Your task to perform on an android device: Open accessibility settings Image 0: 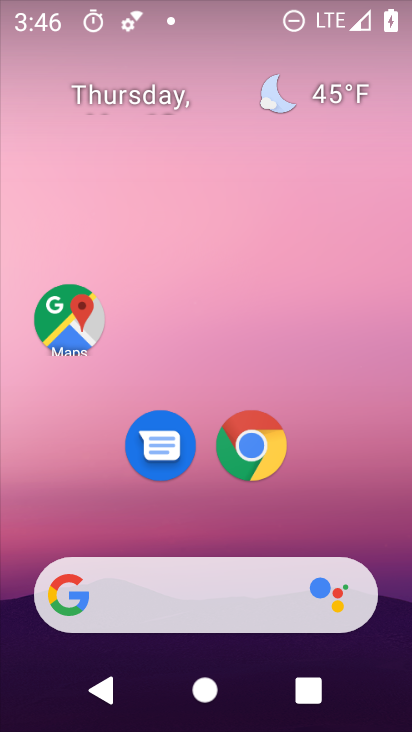
Step 0: drag from (341, 455) to (191, 94)
Your task to perform on an android device: Open accessibility settings Image 1: 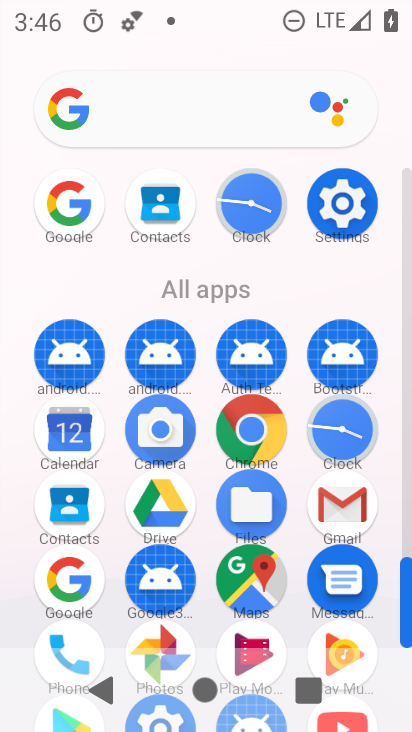
Step 1: click (345, 204)
Your task to perform on an android device: Open accessibility settings Image 2: 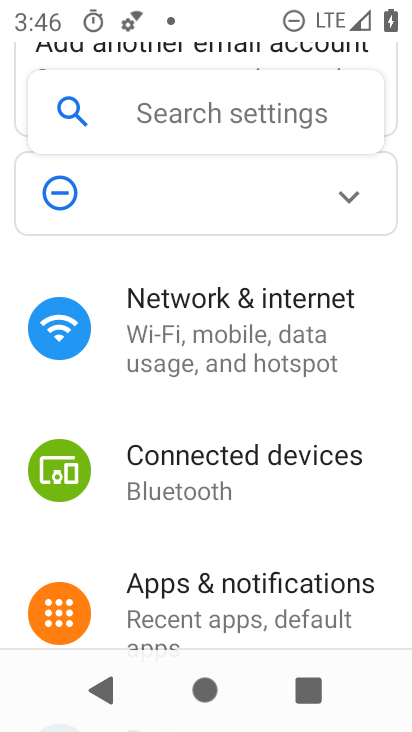
Step 2: drag from (230, 431) to (299, 264)
Your task to perform on an android device: Open accessibility settings Image 3: 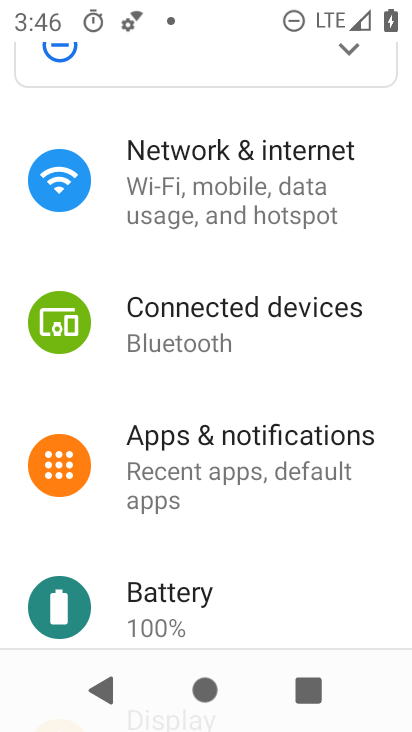
Step 3: drag from (222, 517) to (265, 442)
Your task to perform on an android device: Open accessibility settings Image 4: 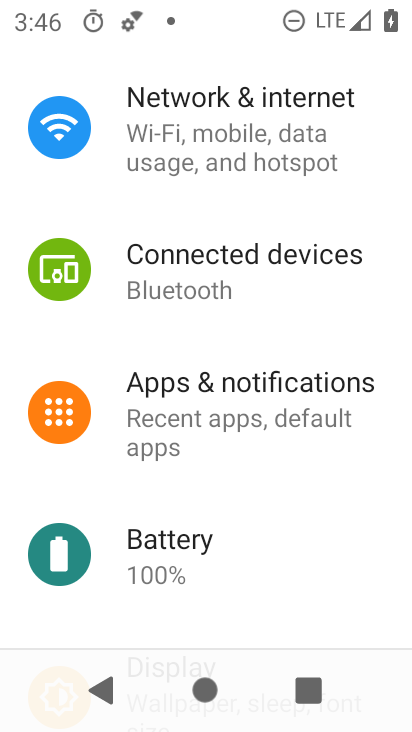
Step 4: drag from (249, 522) to (294, 392)
Your task to perform on an android device: Open accessibility settings Image 5: 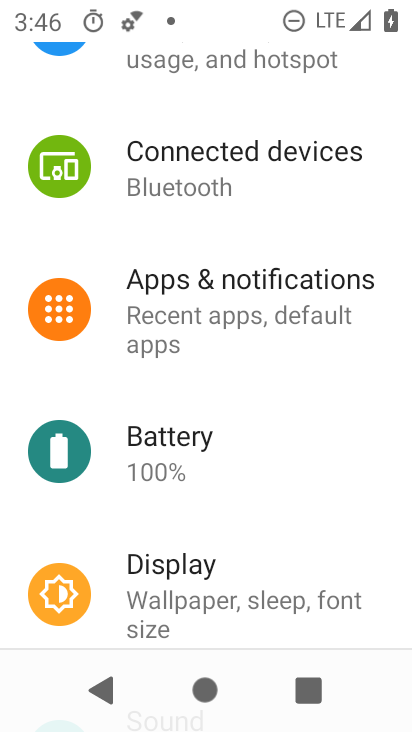
Step 5: drag from (257, 506) to (253, 428)
Your task to perform on an android device: Open accessibility settings Image 6: 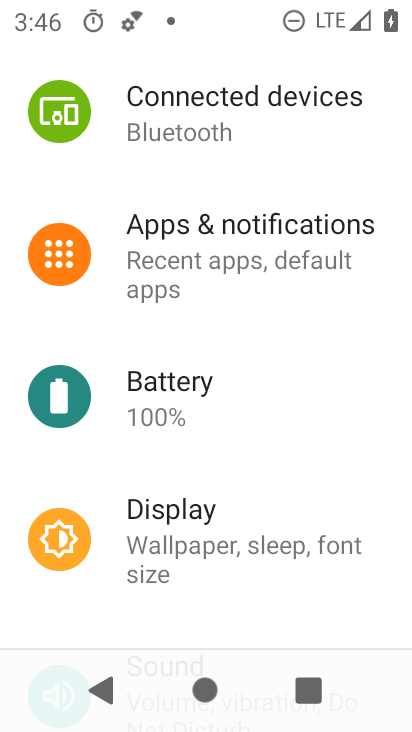
Step 6: drag from (264, 491) to (283, 406)
Your task to perform on an android device: Open accessibility settings Image 7: 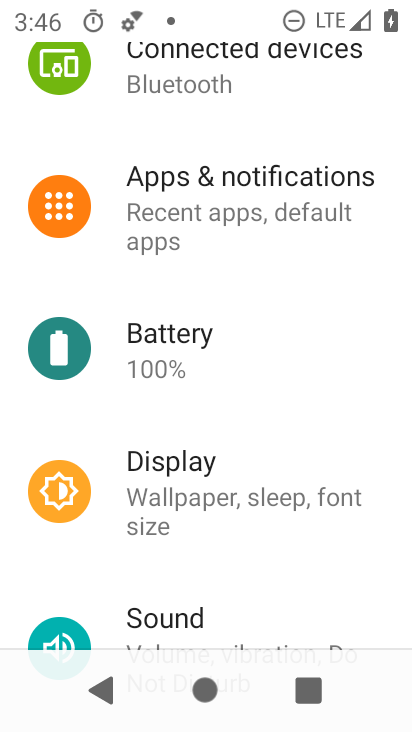
Step 7: drag from (237, 536) to (263, 414)
Your task to perform on an android device: Open accessibility settings Image 8: 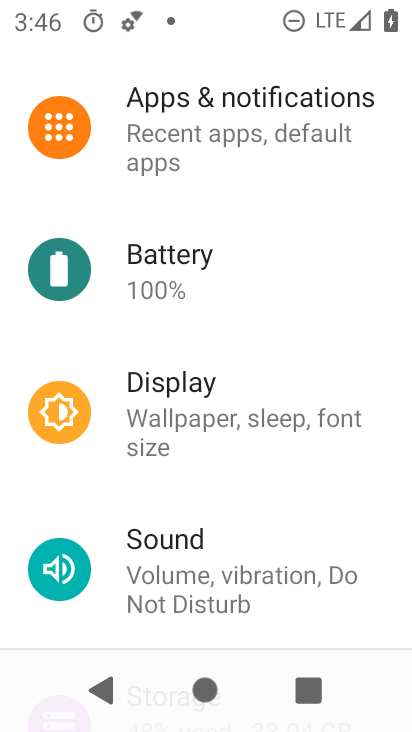
Step 8: drag from (254, 514) to (276, 380)
Your task to perform on an android device: Open accessibility settings Image 9: 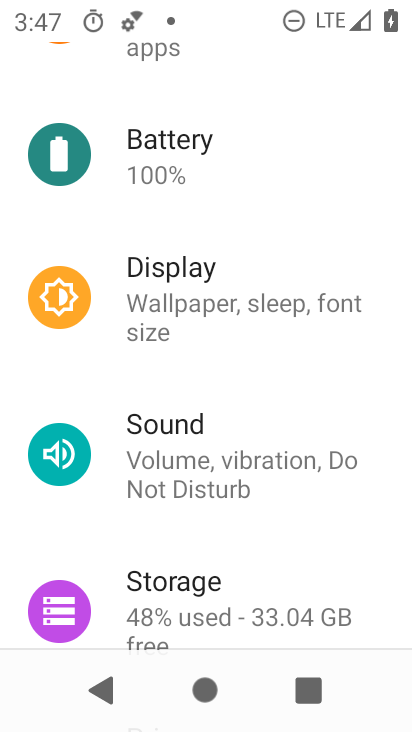
Step 9: drag from (247, 524) to (290, 367)
Your task to perform on an android device: Open accessibility settings Image 10: 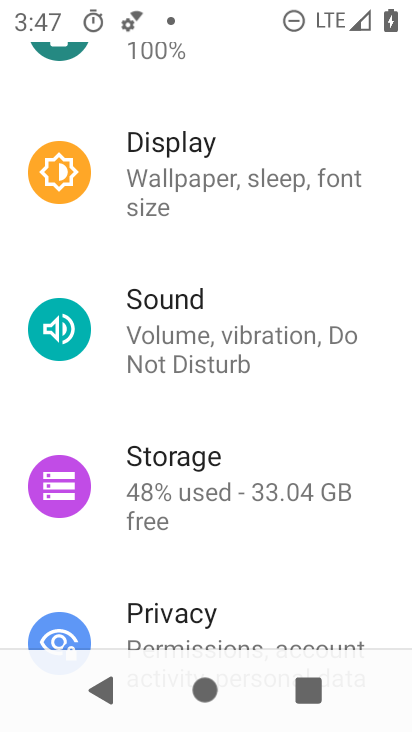
Step 10: drag from (235, 567) to (311, 373)
Your task to perform on an android device: Open accessibility settings Image 11: 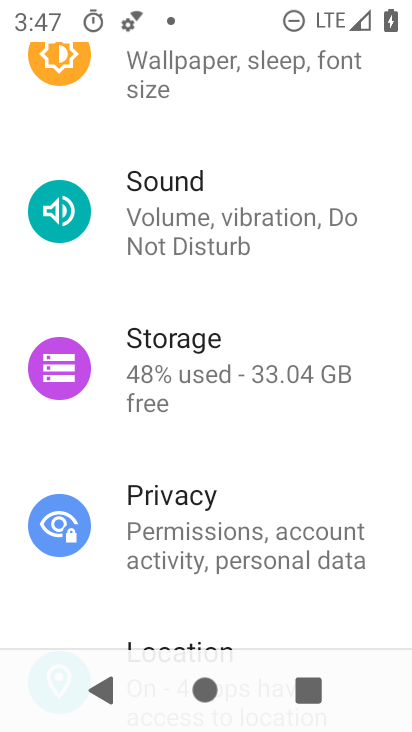
Step 11: drag from (223, 590) to (300, 372)
Your task to perform on an android device: Open accessibility settings Image 12: 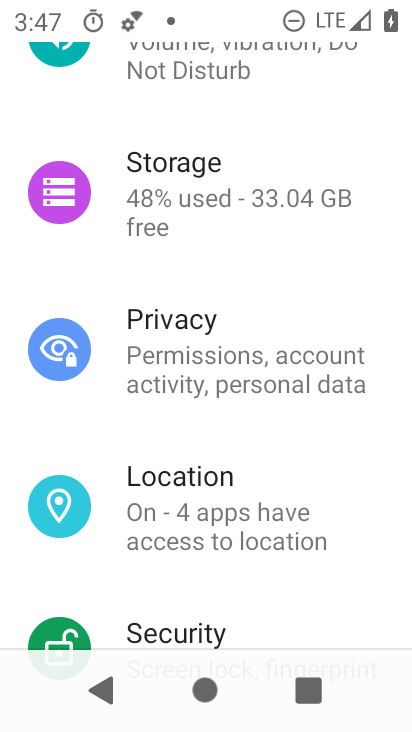
Step 12: drag from (313, 489) to (312, 239)
Your task to perform on an android device: Open accessibility settings Image 13: 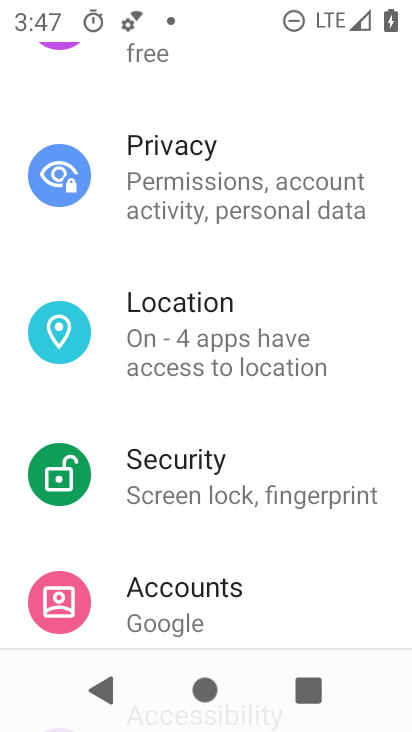
Step 13: drag from (231, 520) to (306, 292)
Your task to perform on an android device: Open accessibility settings Image 14: 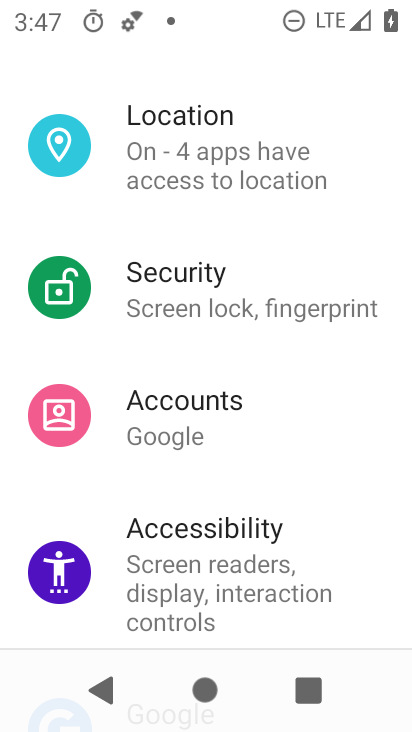
Step 14: click (201, 518)
Your task to perform on an android device: Open accessibility settings Image 15: 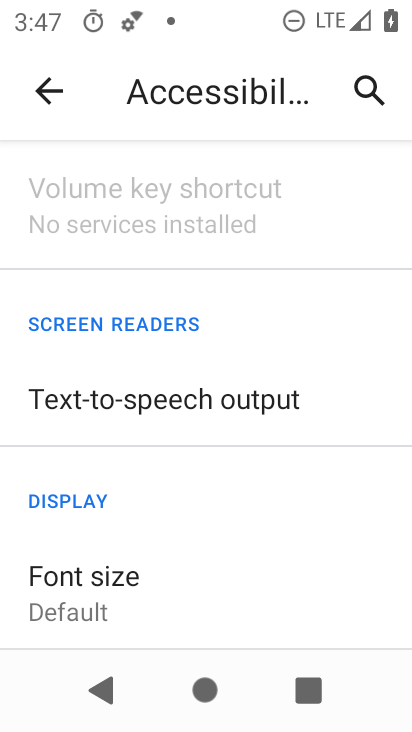
Step 15: task complete